Your task to perform on an android device: show emergency info Image 0: 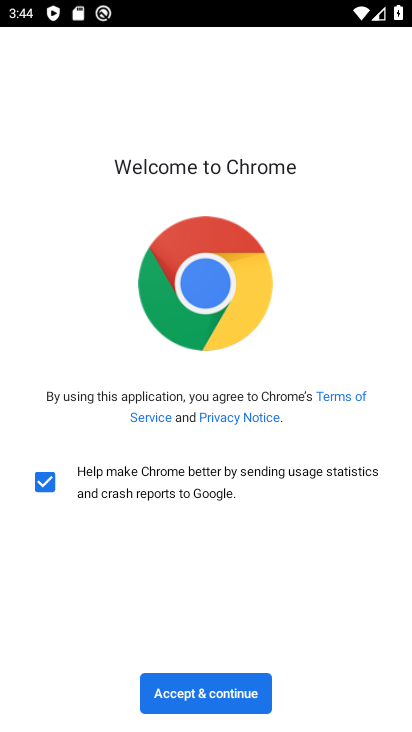
Step 0: press home button
Your task to perform on an android device: show emergency info Image 1: 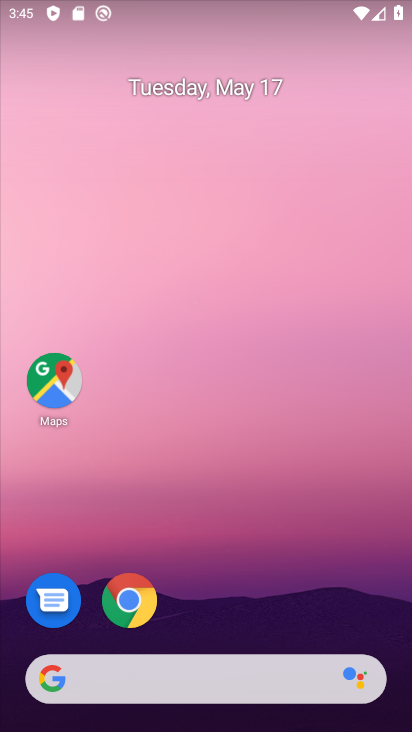
Step 1: drag from (195, 631) to (287, 22)
Your task to perform on an android device: show emergency info Image 2: 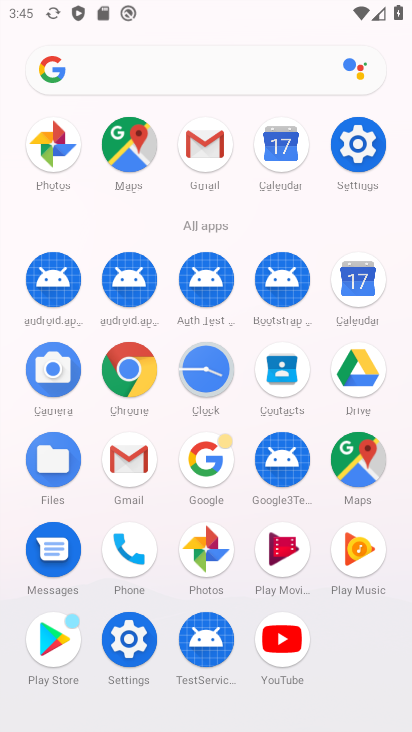
Step 2: click (357, 161)
Your task to perform on an android device: show emergency info Image 3: 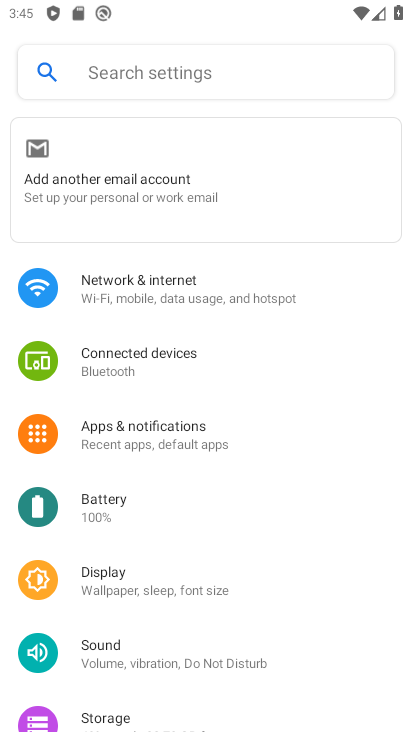
Step 3: drag from (201, 549) to (248, 275)
Your task to perform on an android device: show emergency info Image 4: 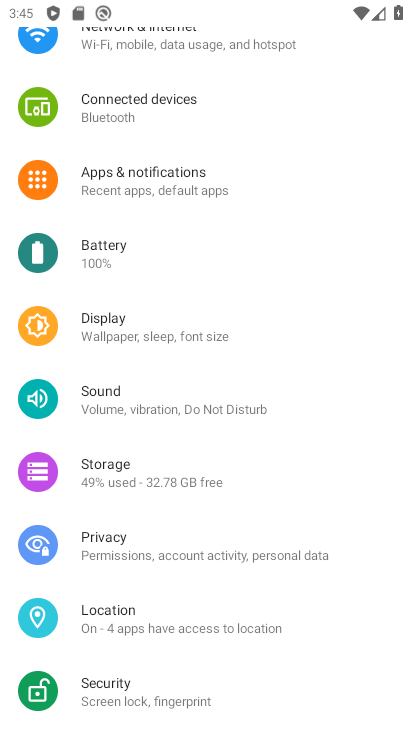
Step 4: drag from (187, 579) to (251, 181)
Your task to perform on an android device: show emergency info Image 5: 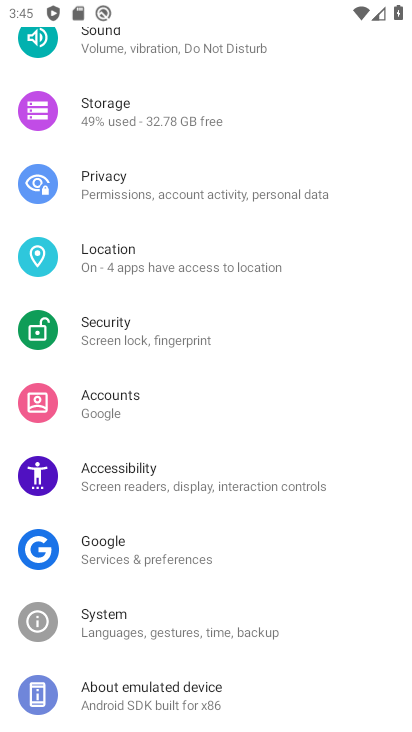
Step 5: drag from (175, 635) to (251, 215)
Your task to perform on an android device: show emergency info Image 6: 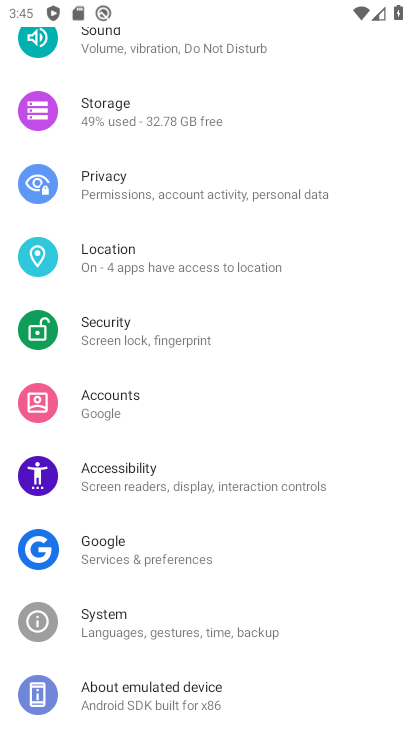
Step 6: click (164, 691)
Your task to perform on an android device: show emergency info Image 7: 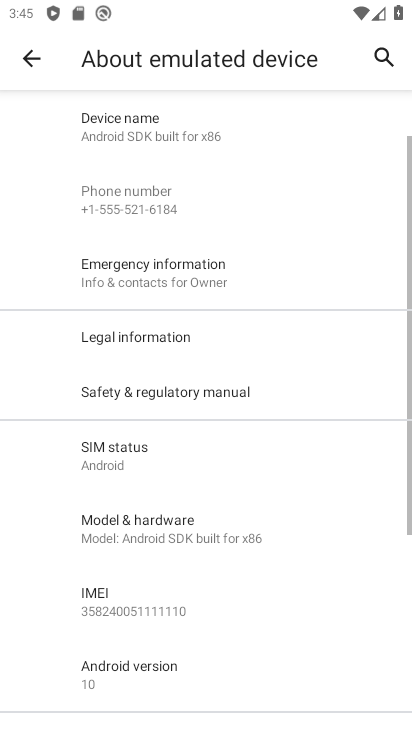
Step 7: click (142, 260)
Your task to perform on an android device: show emergency info Image 8: 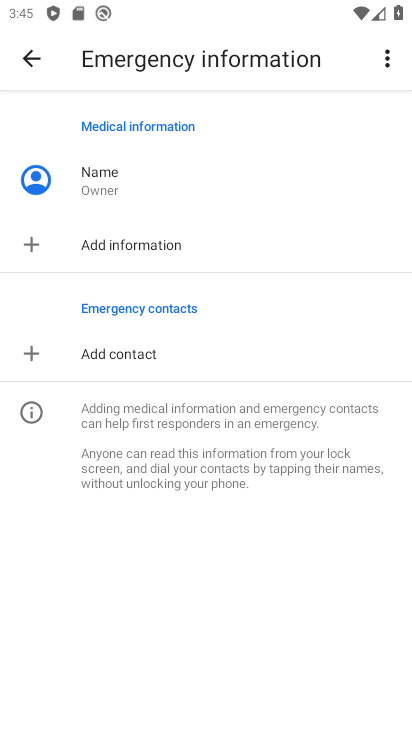
Step 8: task complete